Your task to perform on an android device: Open calendar and show me the second week of next month Image 0: 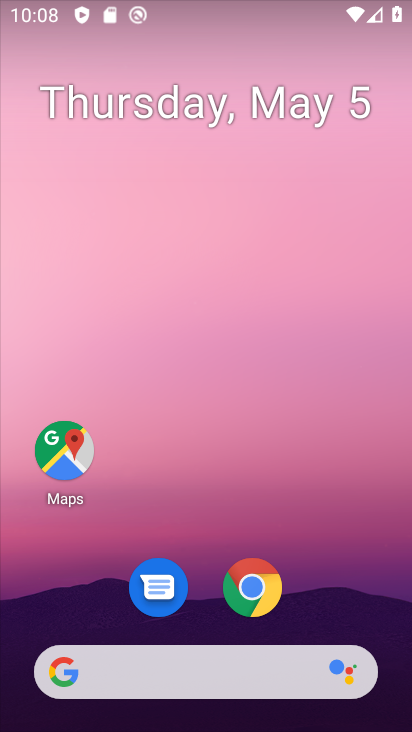
Step 0: drag from (309, 478) to (253, 22)
Your task to perform on an android device: Open calendar and show me the second week of next month Image 1: 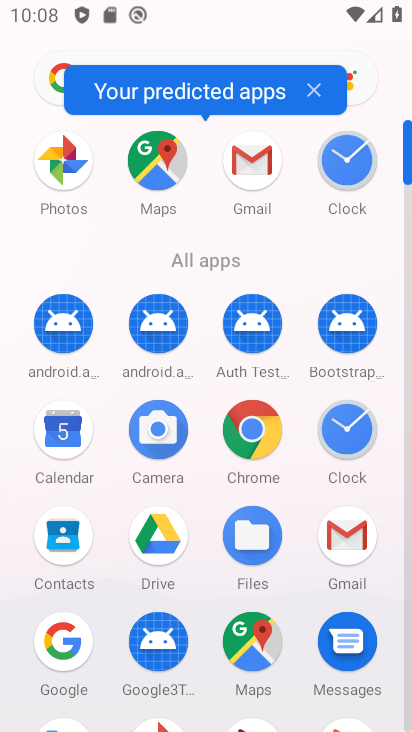
Step 1: drag from (14, 579) to (19, 277)
Your task to perform on an android device: Open calendar and show me the second week of next month Image 2: 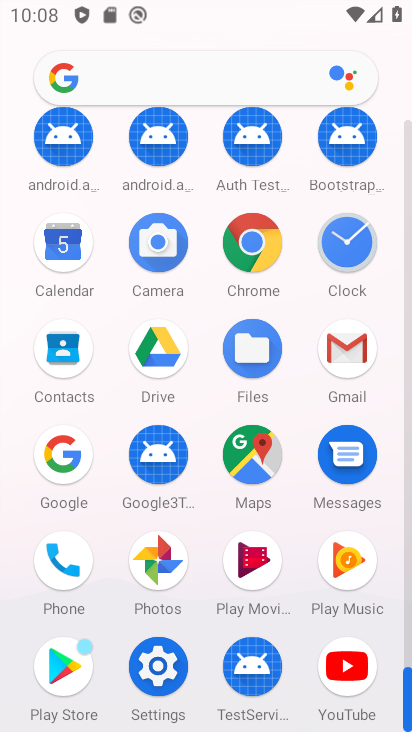
Step 2: click (61, 237)
Your task to perform on an android device: Open calendar and show me the second week of next month Image 3: 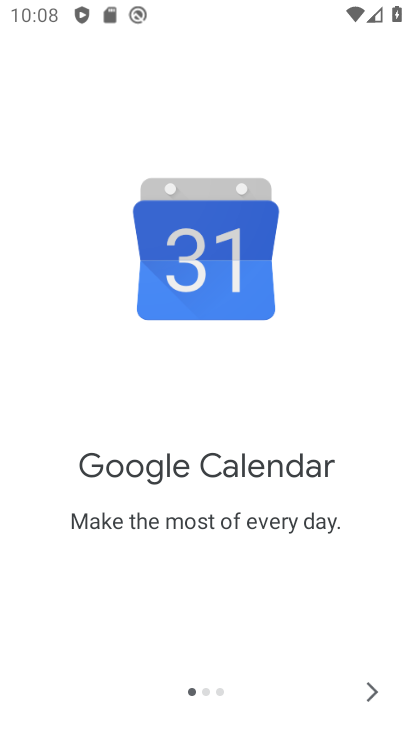
Step 3: click (369, 701)
Your task to perform on an android device: Open calendar and show me the second week of next month Image 4: 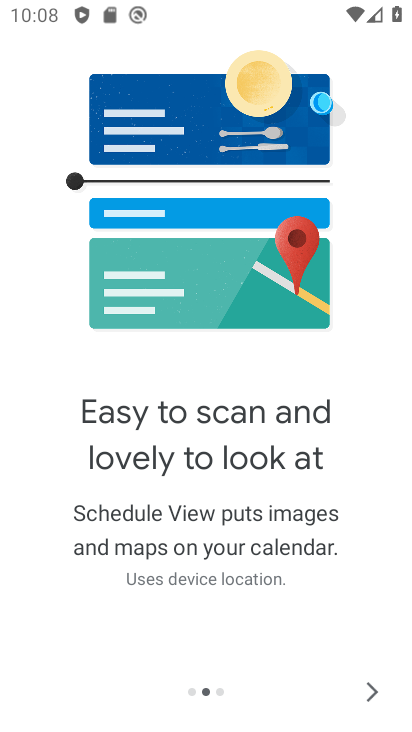
Step 4: click (368, 696)
Your task to perform on an android device: Open calendar and show me the second week of next month Image 5: 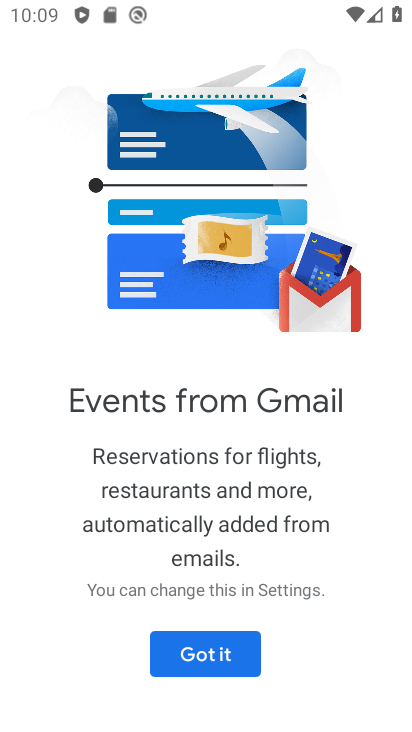
Step 5: click (206, 655)
Your task to perform on an android device: Open calendar and show me the second week of next month Image 6: 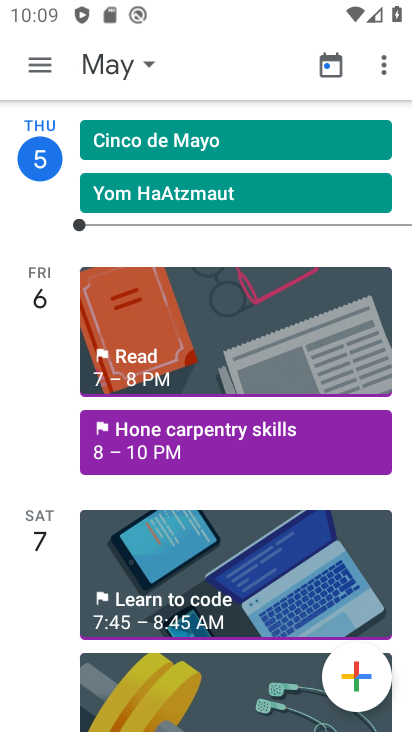
Step 6: click (127, 65)
Your task to perform on an android device: Open calendar and show me the second week of next month Image 7: 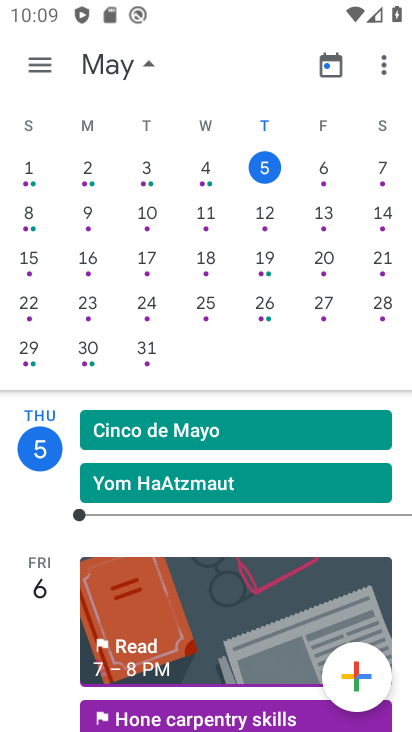
Step 7: drag from (372, 284) to (30, 183)
Your task to perform on an android device: Open calendar and show me the second week of next month Image 8: 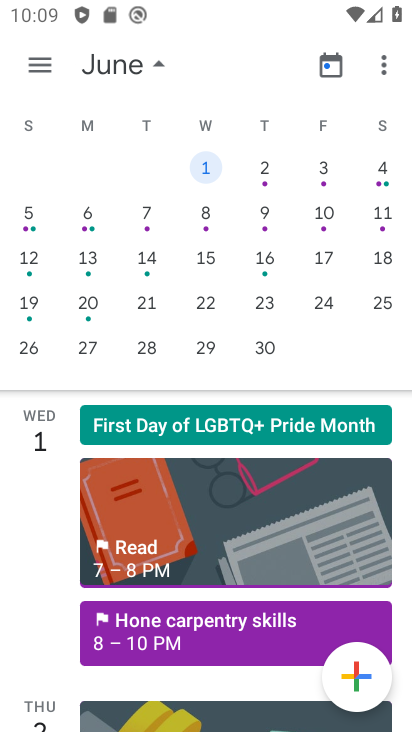
Step 8: click (16, 211)
Your task to perform on an android device: Open calendar and show me the second week of next month Image 9: 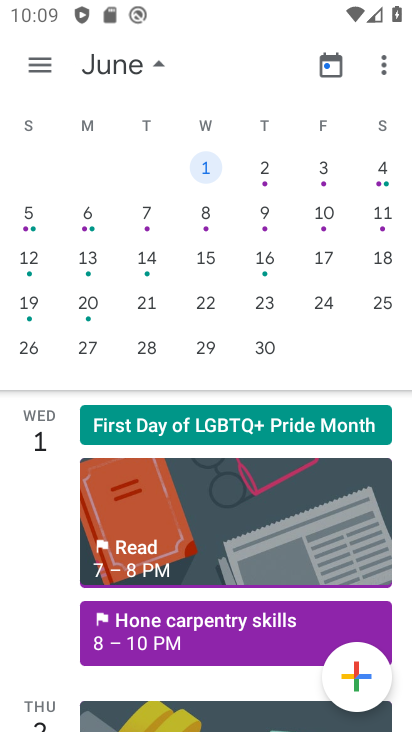
Step 9: click (29, 210)
Your task to perform on an android device: Open calendar and show me the second week of next month Image 10: 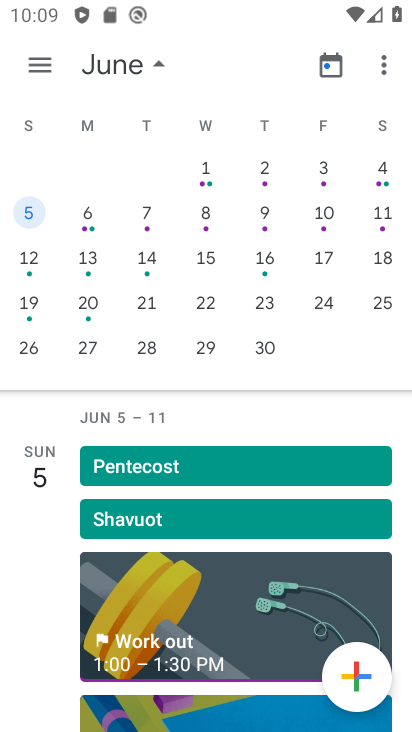
Step 10: click (41, 60)
Your task to perform on an android device: Open calendar and show me the second week of next month Image 11: 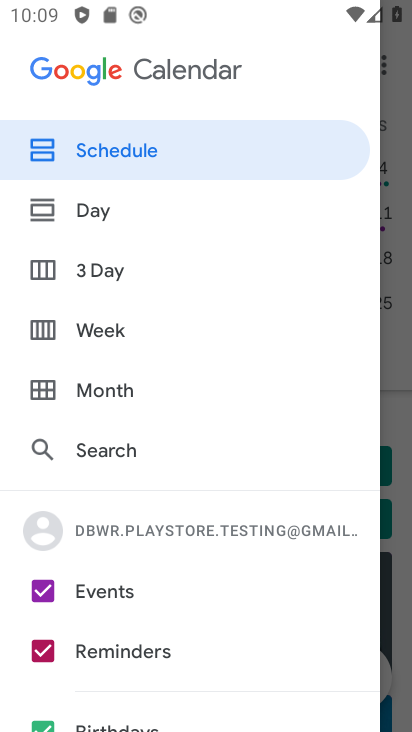
Step 11: click (110, 326)
Your task to perform on an android device: Open calendar and show me the second week of next month Image 12: 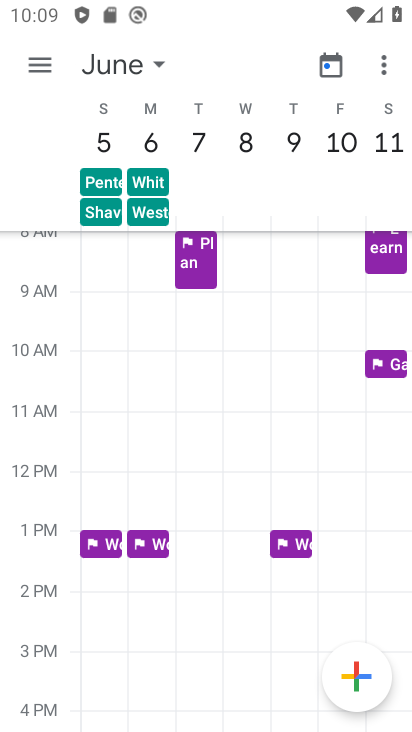
Step 12: task complete